Your task to perform on an android device: create a new album in the google photos Image 0: 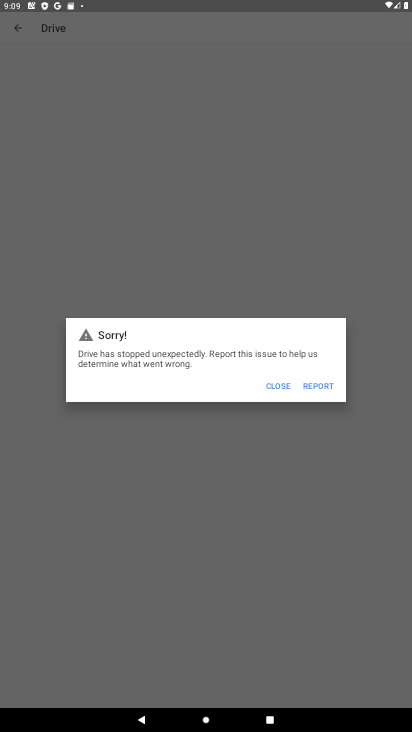
Step 0: press home button
Your task to perform on an android device: create a new album in the google photos Image 1: 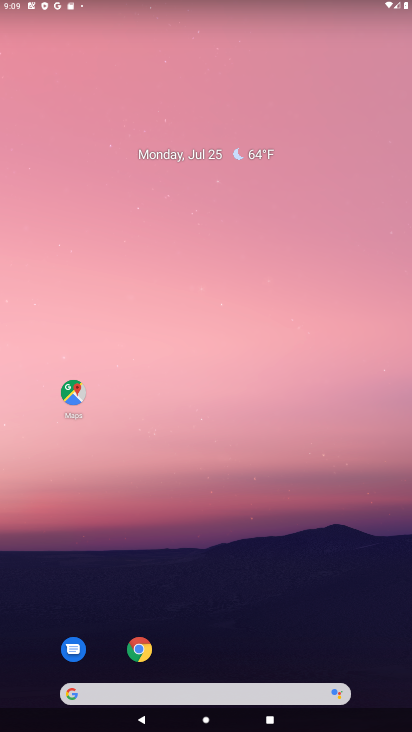
Step 1: drag from (364, 603) to (175, 20)
Your task to perform on an android device: create a new album in the google photos Image 2: 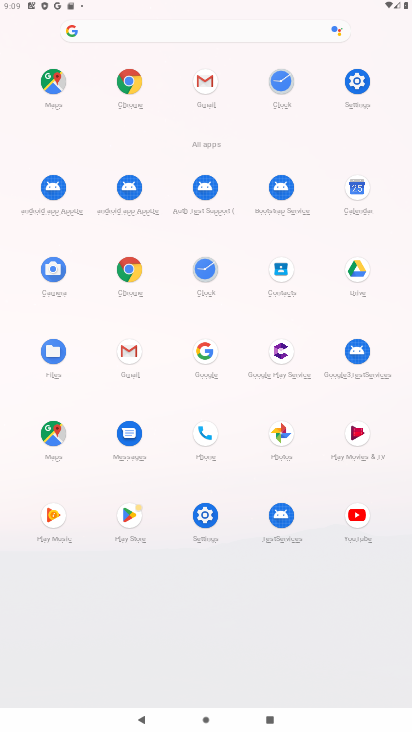
Step 2: click (283, 441)
Your task to perform on an android device: create a new album in the google photos Image 3: 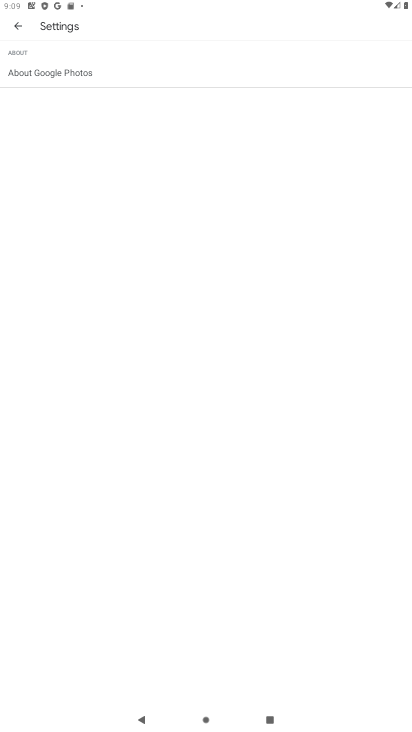
Step 3: click (17, 23)
Your task to perform on an android device: create a new album in the google photos Image 4: 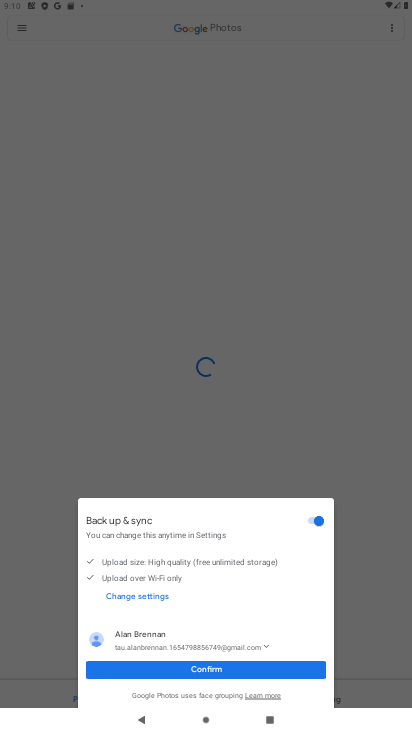
Step 4: click (236, 665)
Your task to perform on an android device: create a new album in the google photos Image 5: 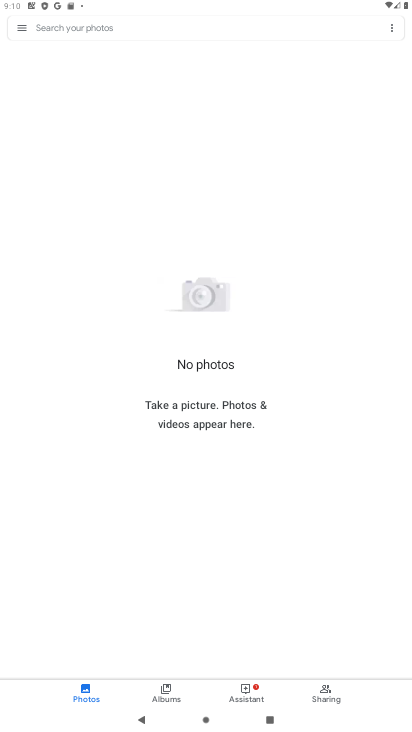
Step 5: task complete